Your task to perform on an android device: change the clock display to digital Image 0: 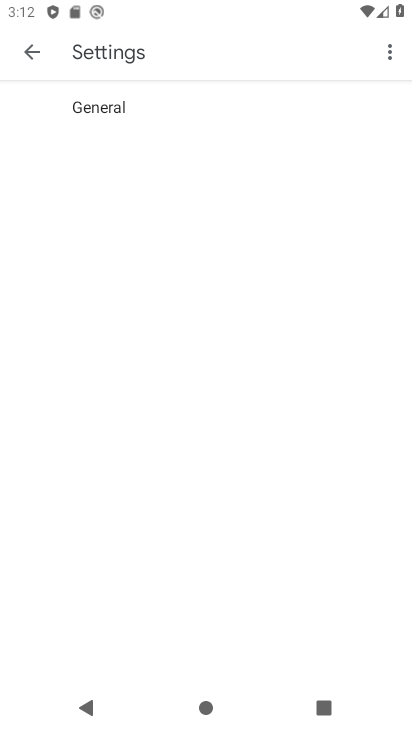
Step 0: press home button
Your task to perform on an android device: change the clock display to digital Image 1: 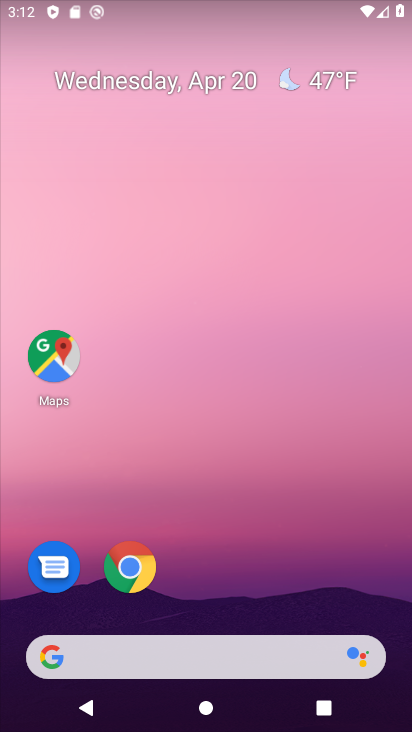
Step 1: drag from (188, 616) to (259, 7)
Your task to perform on an android device: change the clock display to digital Image 2: 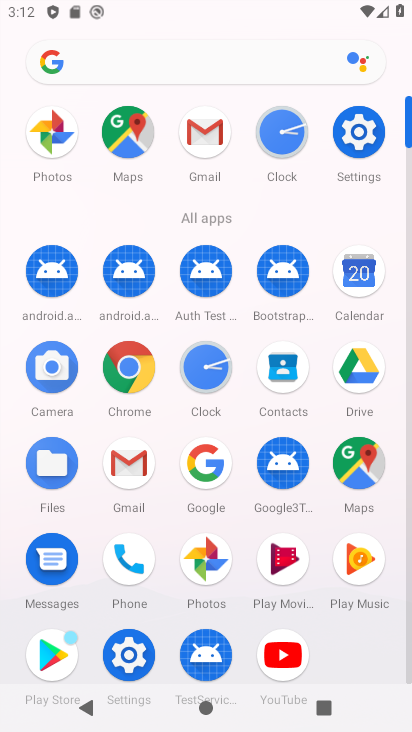
Step 2: click (274, 137)
Your task to perform on an android device: change the clock display to digital Image 3: 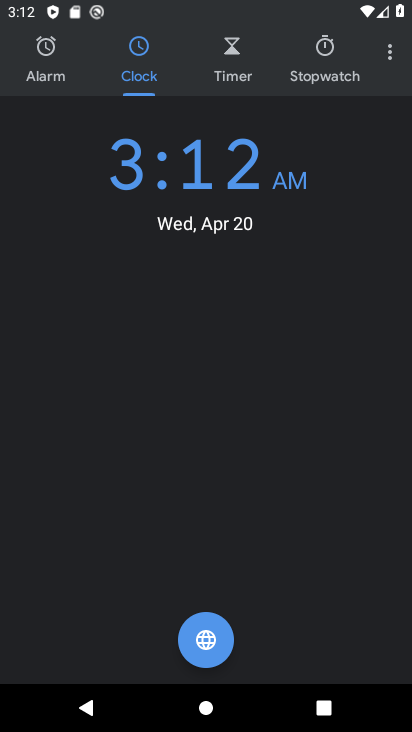
Step 3: click (391, 62)
Your task to perform on an android device: change the clock display to digital Image 4: 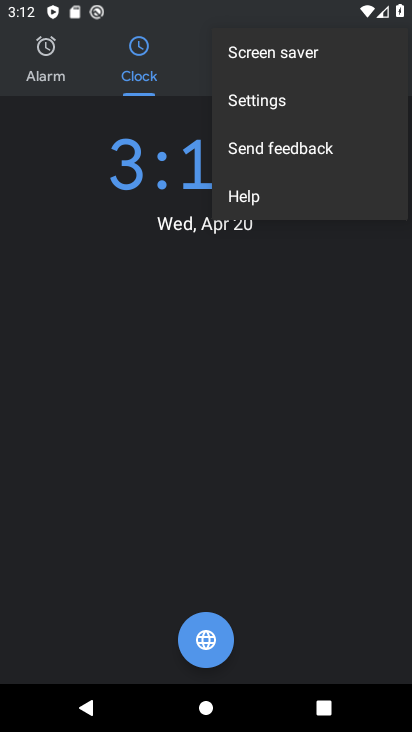
Step 4: click (278, 85)
Your task to perform on an android device: change the clock display to digital Image 5: 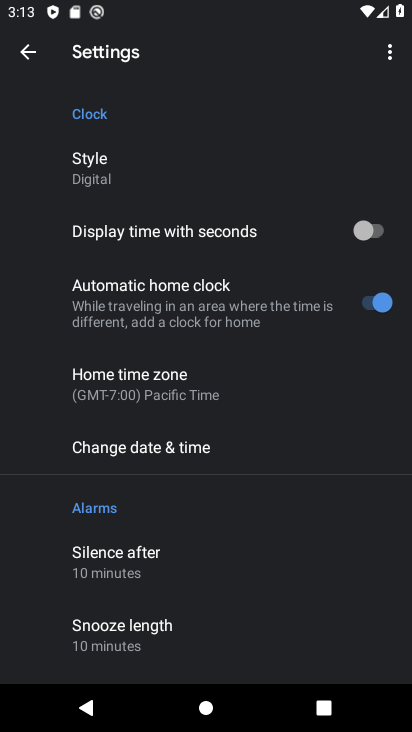
Step 5: task complete